Your task to perform on an android device: turn off notifications in google photos Image 0: 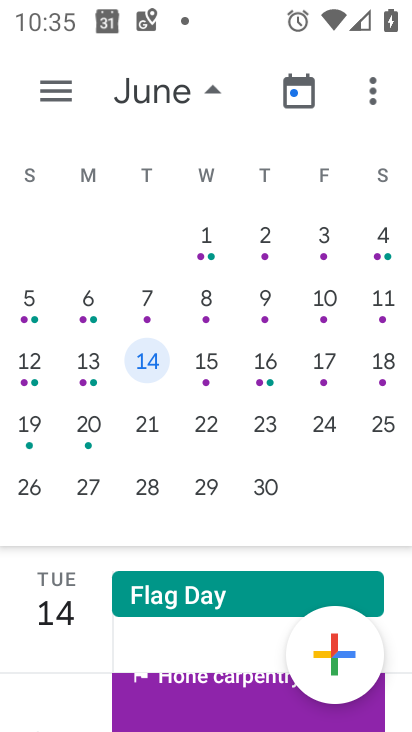
Step 0: press home button
Your task to perform on an android device: turn off notifications in google photos Image 1: 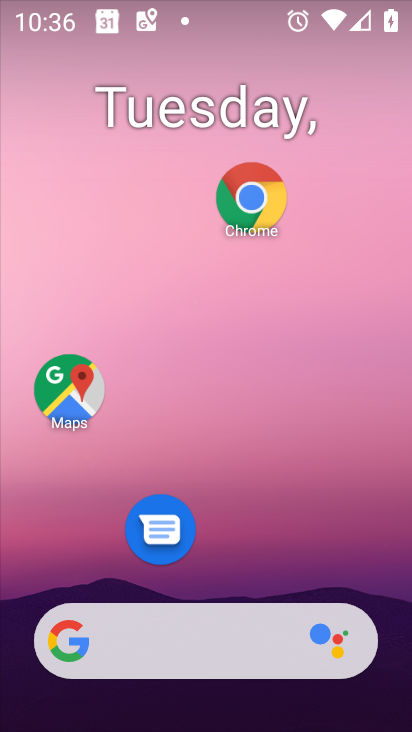
Step 1: drag from (323, 520) to (355, 89)
Your task to perform on an android device: turn off notifications in google photos Image 2: 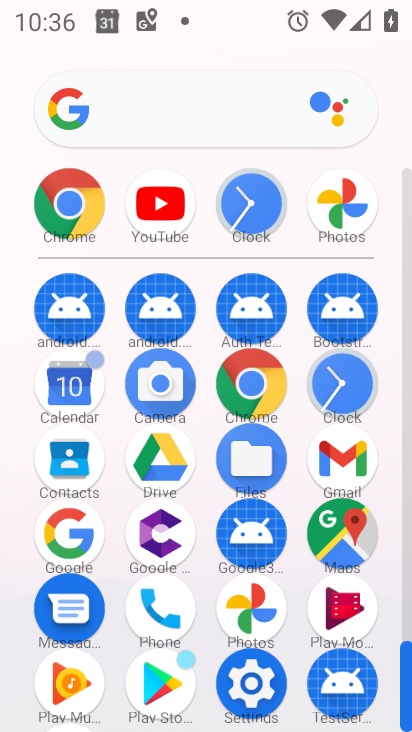
Step 2: click (331, 232)
Your task to perform on an android device: turn off notifications in google photos Image 3: 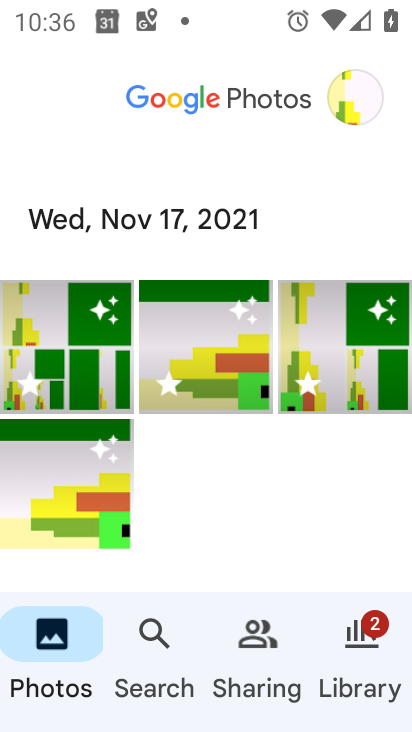
Step 3: click (358, 107)
Your task to perform on an android device: turn off notifications in google photos Image 4: 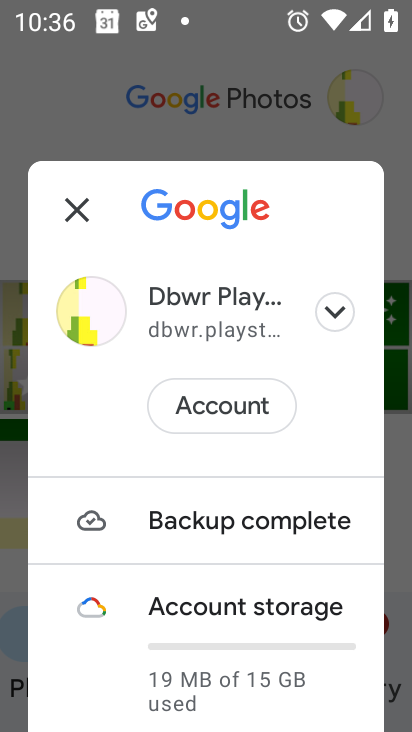
Step 4: drag from (215, 623) to (230, 246)
Your task to perform on an android device: turn off notifications in google photos Image 5: 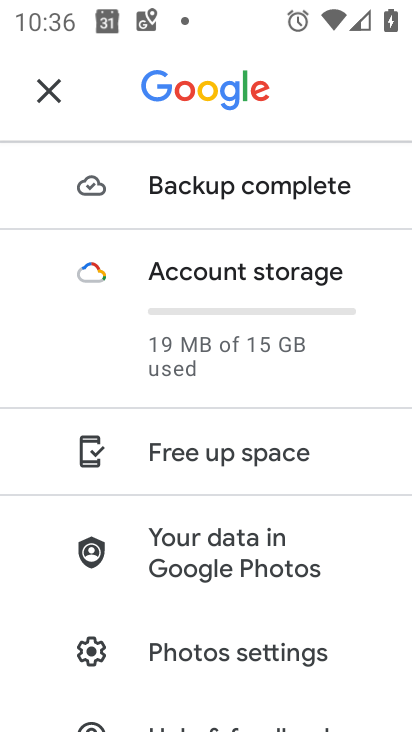
Step 5: click (202, 686)
Your task to perform on an android device: turn off notifications in google photos Image 6: 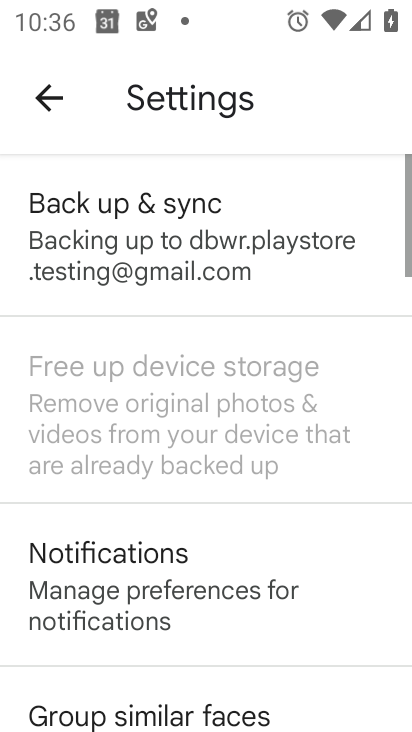
Step 6: click (176, 585)
Your task to perform on an android device: turn off notifications in google photos Image 7: 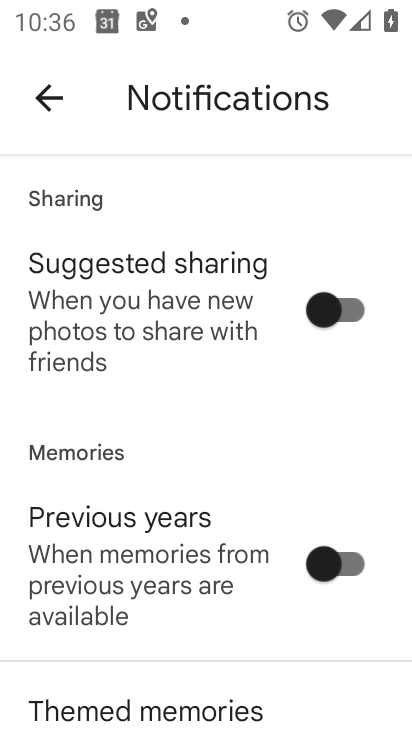
Step 7: task complete